Your task to perform on an android device: Open sound settings Image 0: 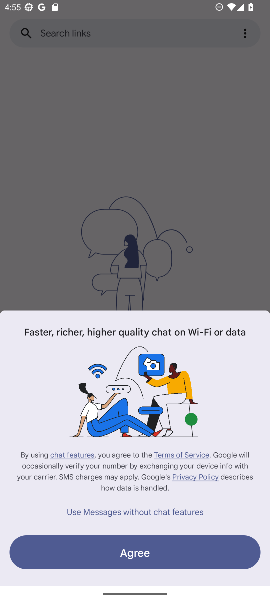
Step 0: drag from (177, 487) to (168, 209)
Your task to perform on an android device: Open sound settings Image 1: 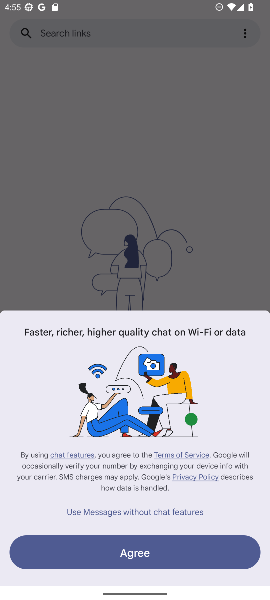
Step 1: press home button
Your task to perform on an android device: Open sound settings Image 2: 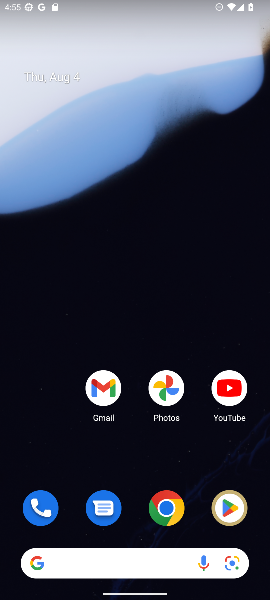
Step 2: drag from (139, 541) to (145, 250)
Your task to perform on an android device: Open sound settings Image 3: 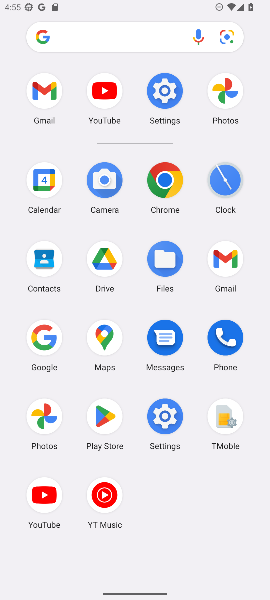
Step 3: drag from (133, 510) to (168, 249)
Your task to perform on an android device: Open sound settings Image 4: 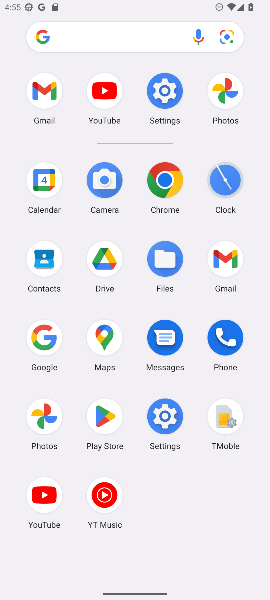
Step 4: click (167, 413)
Your task to perform on an android device: Open sound settings Image 5: 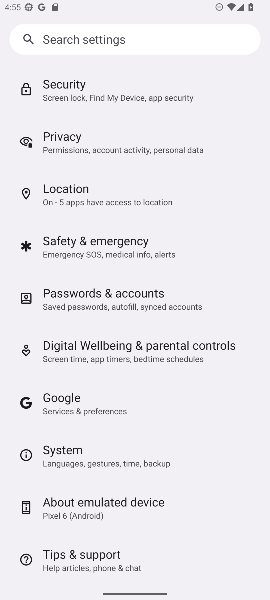
Step 5: drag from (158, 130) to (199, 576)
Your task to perform on an android device: Open sound settings Image 6: 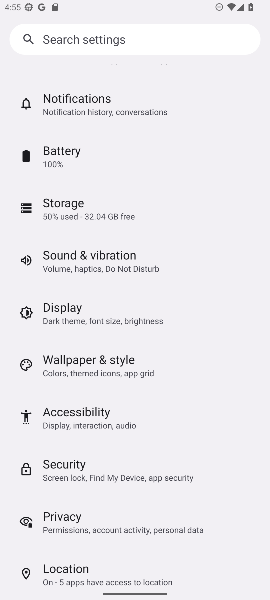
Step 6: drag from (139, 213) to (126, 346)
Your task to perform on an android device: Open sound settings Image 7: 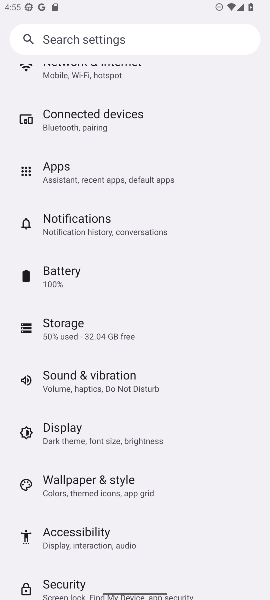
Step 7: click (95, 385)
Your task to perform on an android device: Open sound settings Image 8: 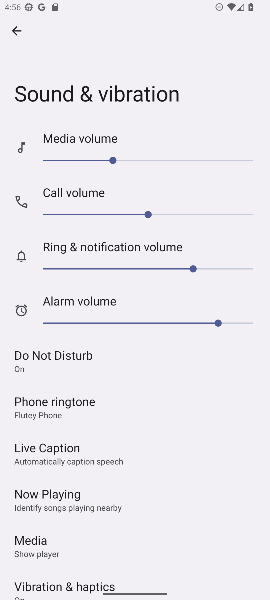
Step 8: task complete